Your task to perform on an android device: Is it going to rain tomorrow? Image 0: 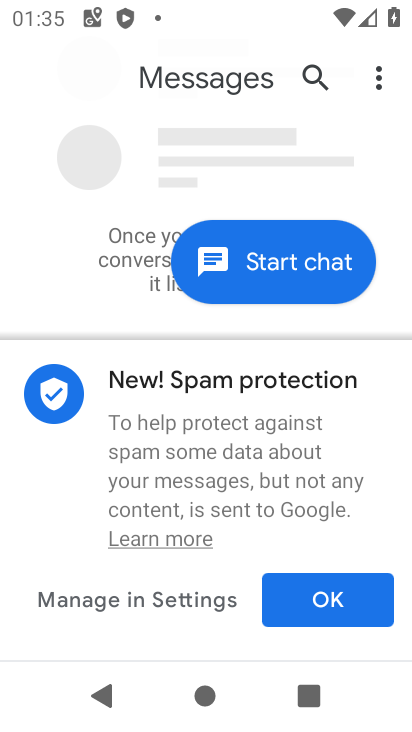
Step 0: press home button
Your task to perform on an android device: Is it going to rain tomorrow? Image 1: 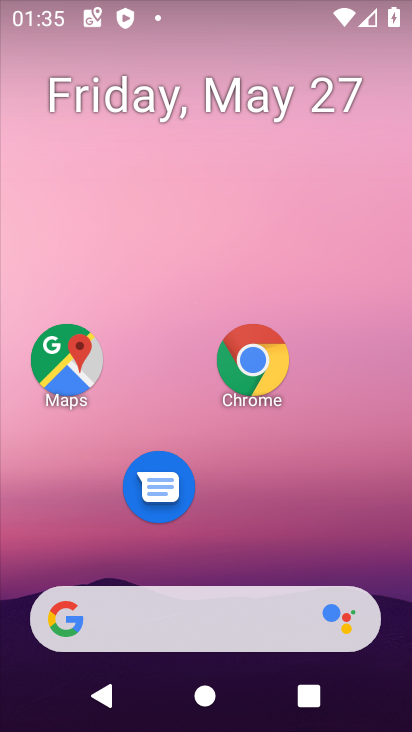
Step 1: drag from (249, 526) to (280, 95)
Your task to perform on an android device: Is it going to rain tomorrow? Image 2: 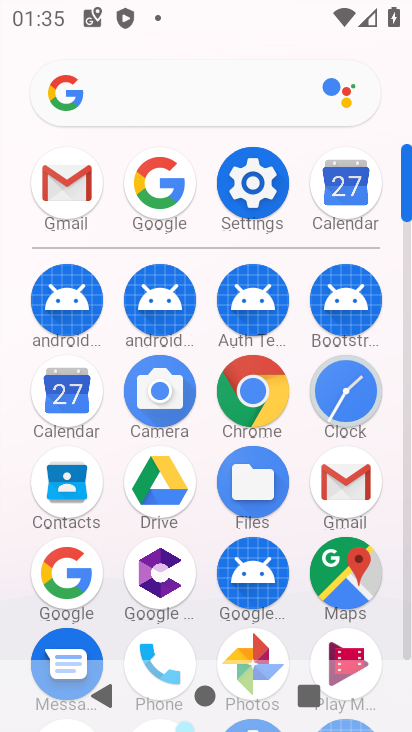
Step 2: click (169, 176)
Your task to perform on an android device: Is it going to rain tomorrow? Image 3: 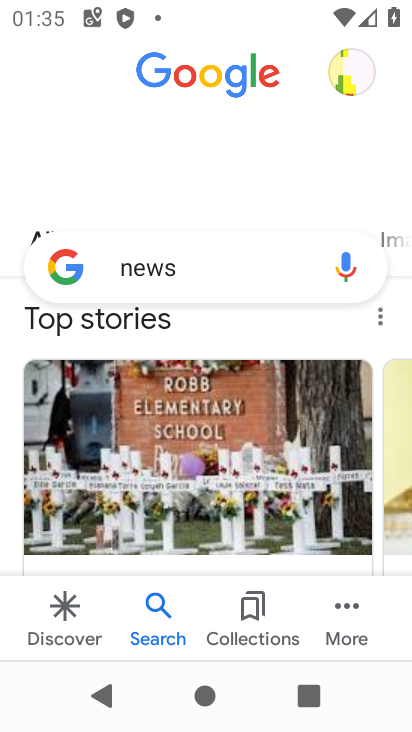
Step 3: click (218, 274)
Your task to perform on an android device: Is it going to rain tomorrow? Image 4: 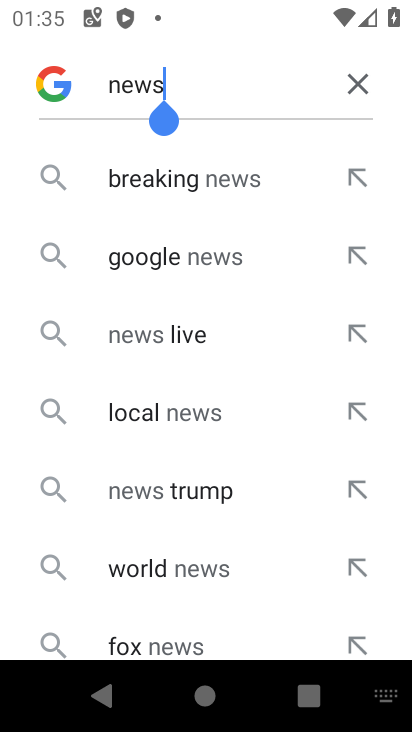
Step 4: click (350, 80)
Your task to perform on an android device: Is it going to rain tomorrow? Image 5: 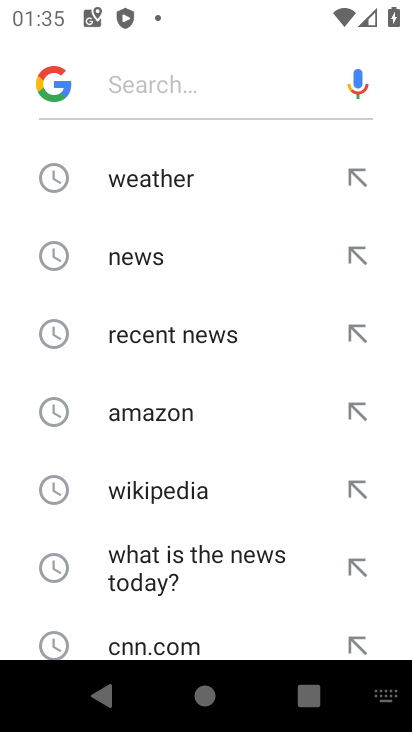
Step 5: drag from (209, 557) to (231, 194)
Your task to perform on an android device: Is it going to rain tomorrow? Image 6: 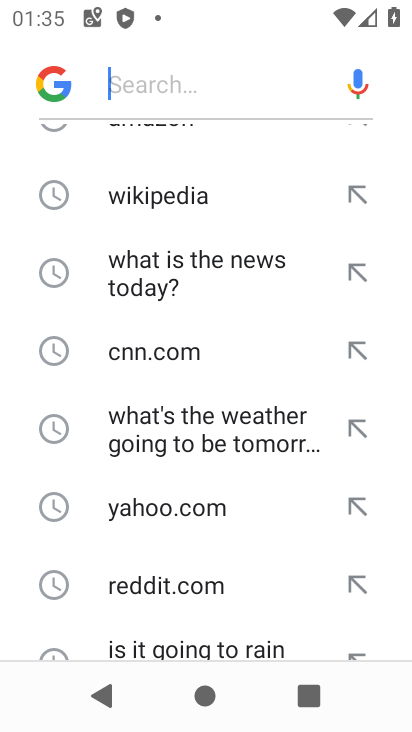
Step 6: drag from (223, 594) to (217, 448)
Your task to perform on an android device: Is it going to rain tomorrow? Image 7: 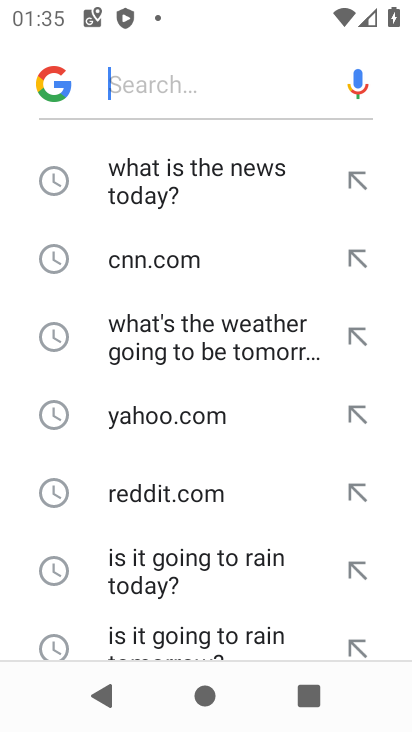
Step 7: drag from (246, 589) to (241, 474)
Your task to perform on an android device: Is it going to rain tomorrow? Image 8: 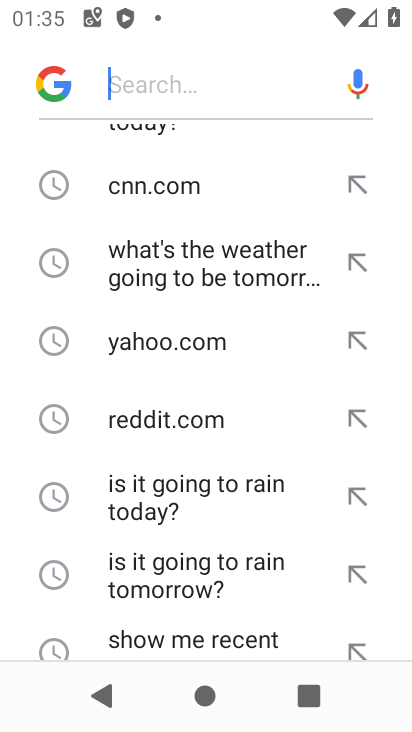
Step 8: click (136, 571)
Your task to perform on an android device: Is it going to rain tomorrow? Image 9: 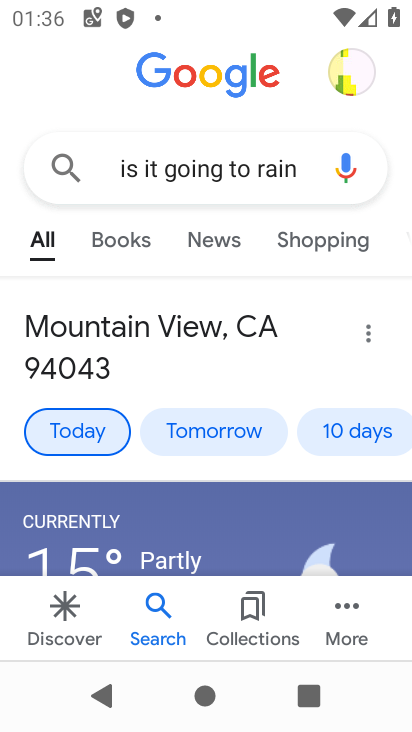
Step 9: click (212, 436)
Your task to perform on an android device: Is it going to rain tomorrow? Image 10: 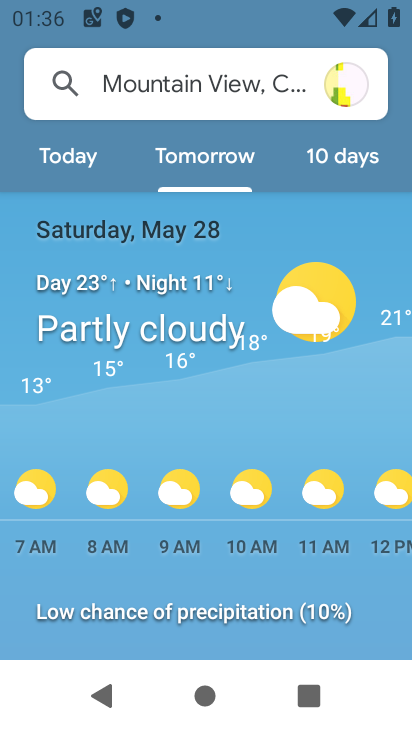
Step 10: task complete